Your task to perform on an android device: find photos in the google photos app Image 0: 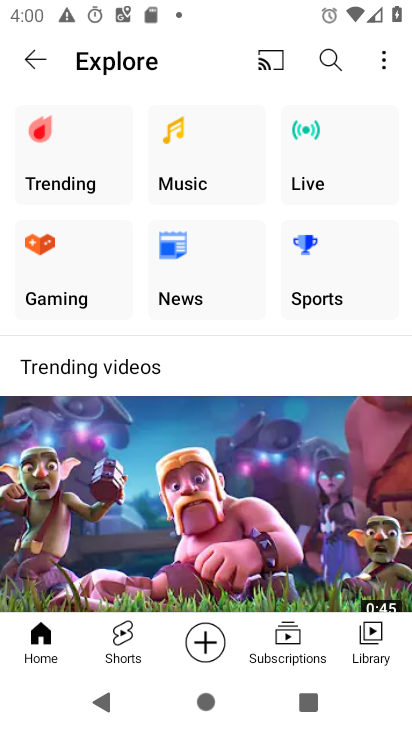
Step 0: press home button
Your task to perform on an android device: find photos in the google photos app Image 1: 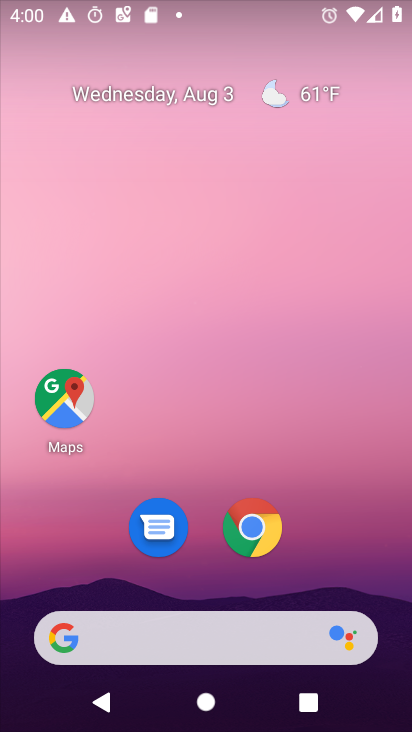
Step 1: drag from (351, 526) to (323, 25)
Your task to perform on an android device: find photos in the google photos app Image 2: 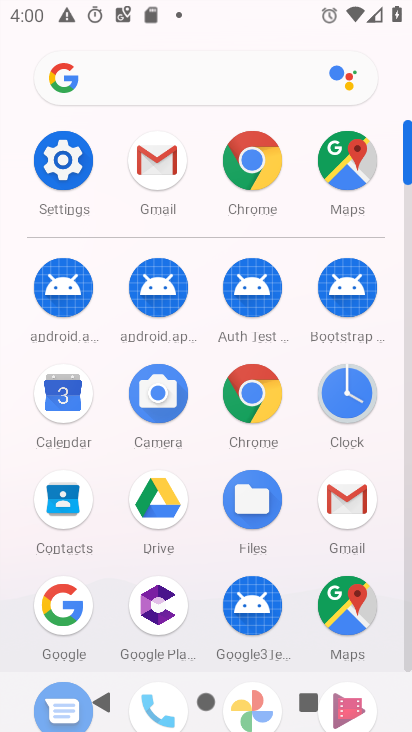
Step 2: drag from (290, 543) to (320, 230)
Your task to perform on an android device: find photos in the google photos app Image 3: 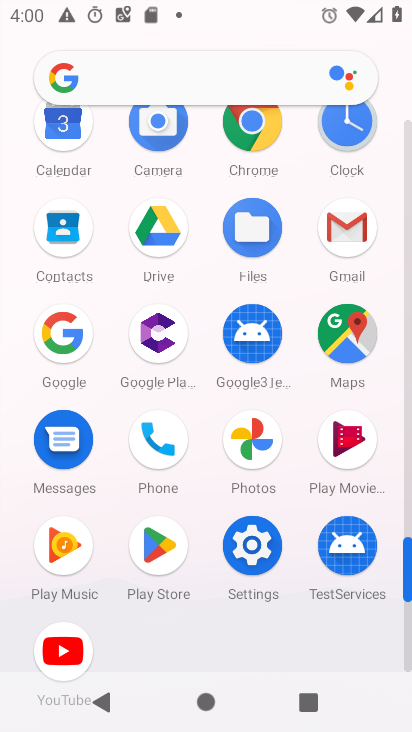
Step 3: click (242, 447)
Your task to perform on an android device: find photos in the google photos app Image 4: 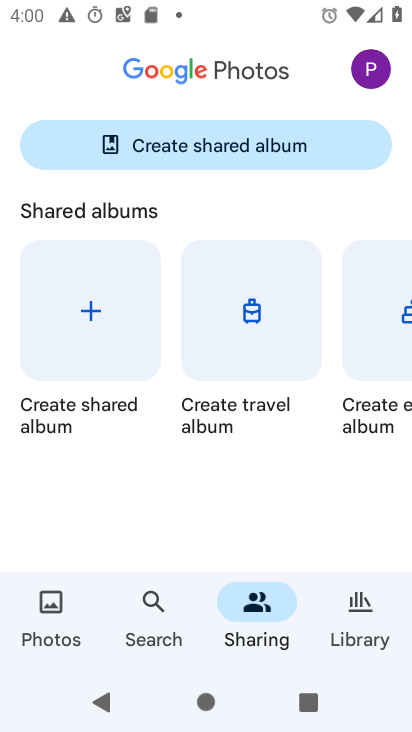
Step 4: click (58, 598)
Your task to perform on an android device: find photos in the google photos app Image 5: 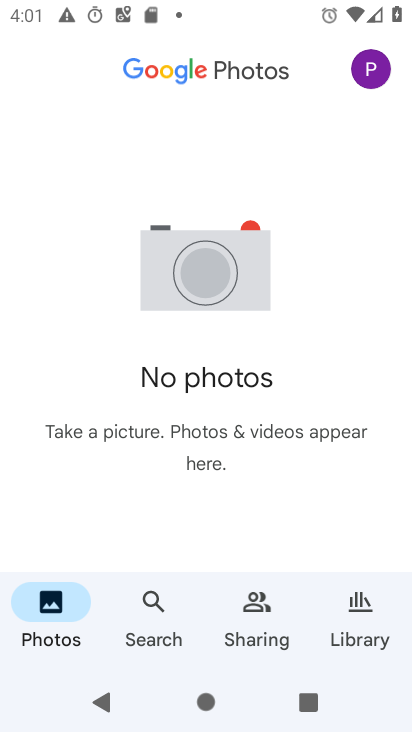
Step 5: task complete